Your task to perform on an android device: Clear the shopping cart on target. Search for usb-a to usb-b on target, select the first entry, and add it to the cart. Image 0: 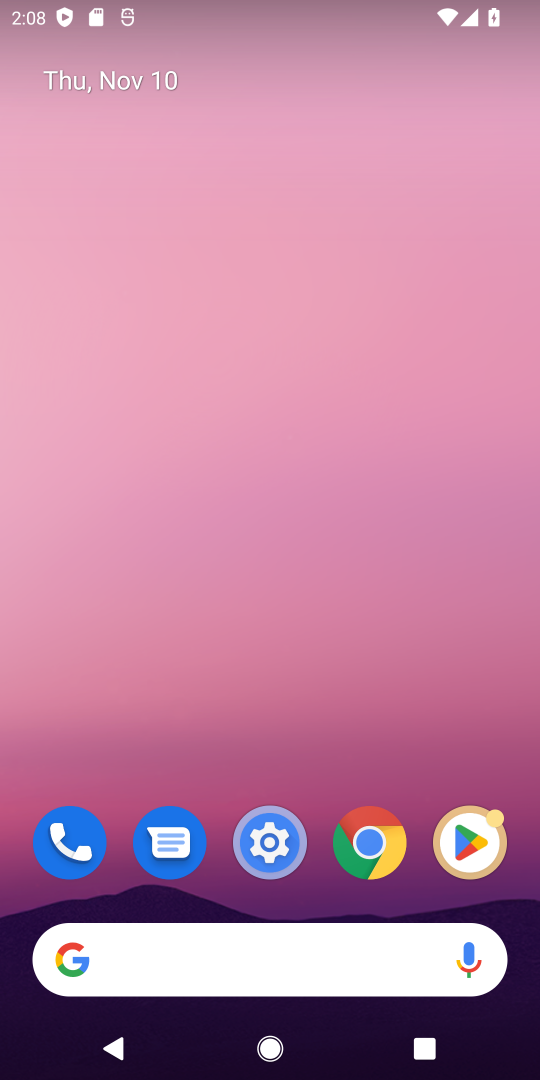
Step 0: press home button
Your task to perform on an android device: Clear the shopping cart on target. Search for usb-a to usb-b on target, select the first entry, and add it to the cart. Image 1: 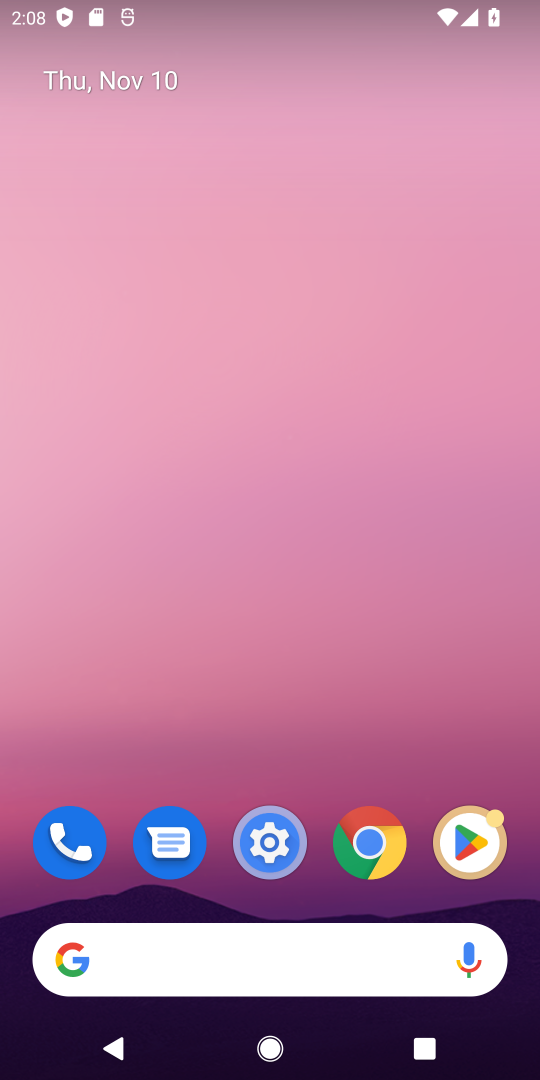
Step 1: click (110, 962)
Your task to perform on an android device: Clear the shopping cart on target. Search for usb-a to usb-b on target, select the first entry, and add it to the cart. Image 2: 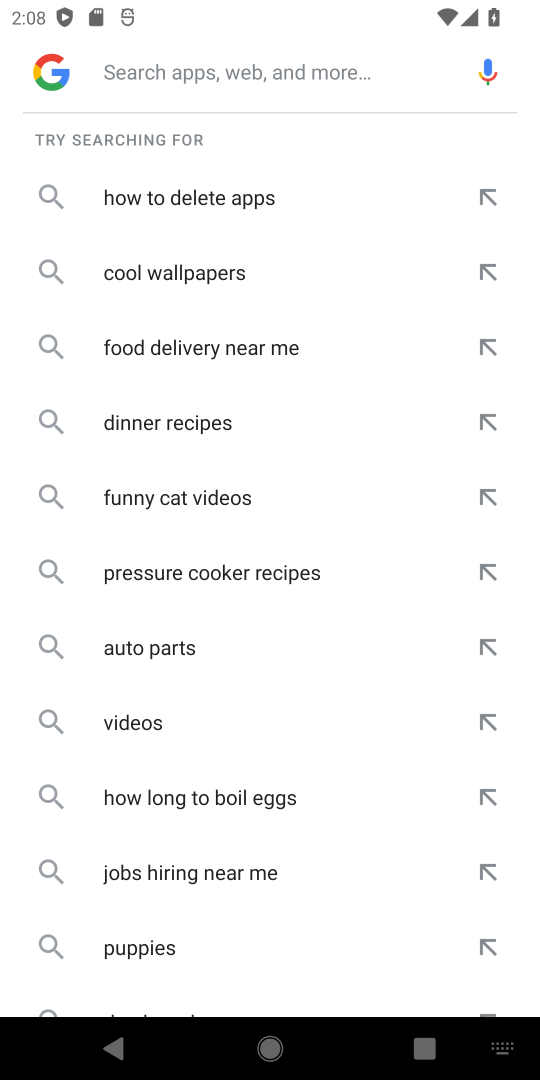
Step 2: type "target"
Your task to perform on an android device: Clear the shopping cart on target. Search for usb-a to usb-b on target, select the first entry, and add it to the cart. Image 3: 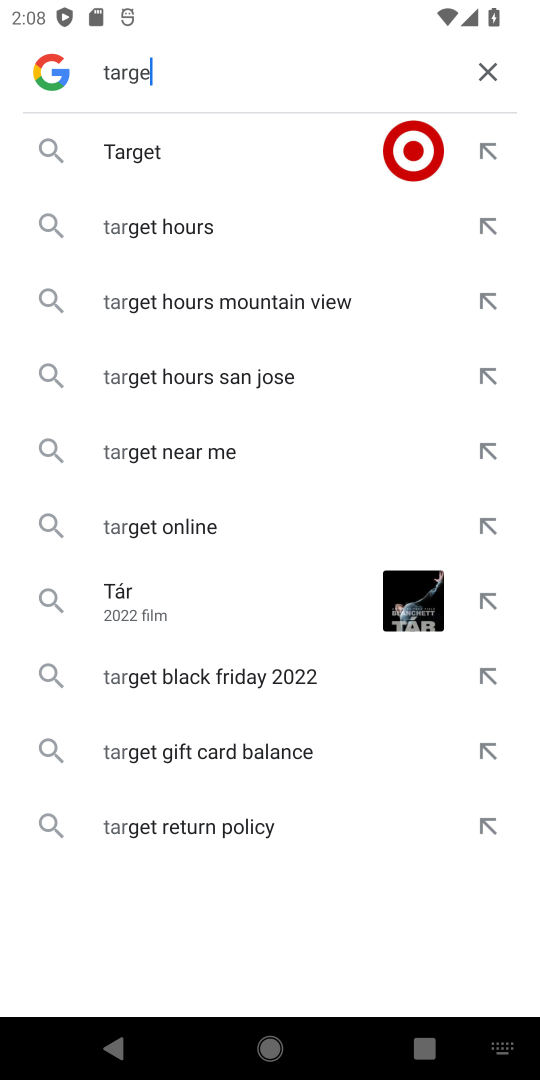
Step 3: press enter
Your task to perform on an android device: Clear the shopping cart on target. Search for usb-a to usb-b on target, select the first entry, and add it to the cart. Image 4: 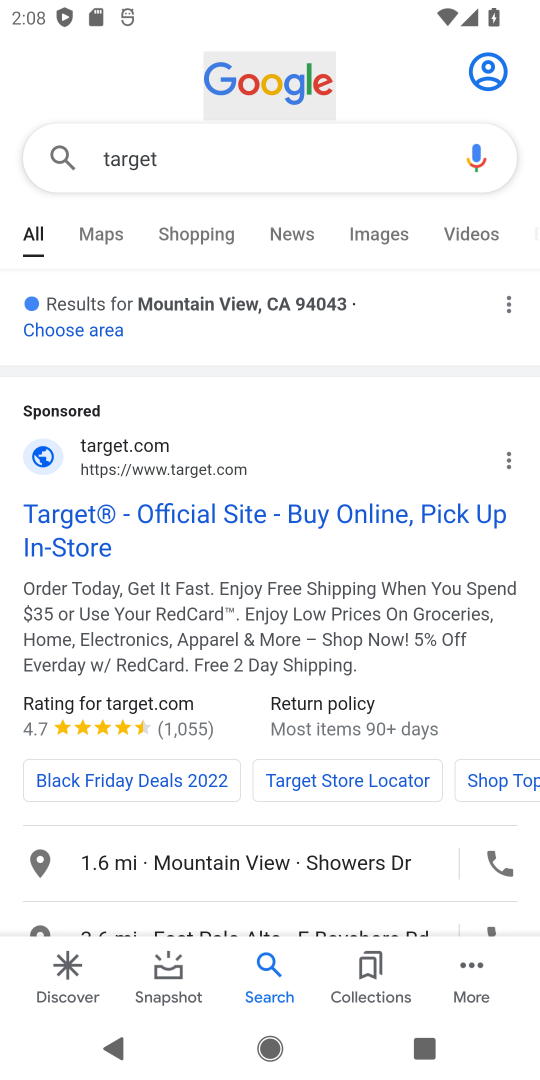
Step 4: click (179, 522)
Your task to perform on an android device: Clear the shopping cart on target. Search for usb-a to usb-b on target, select the first entry, and add it to the cart. Image 5: 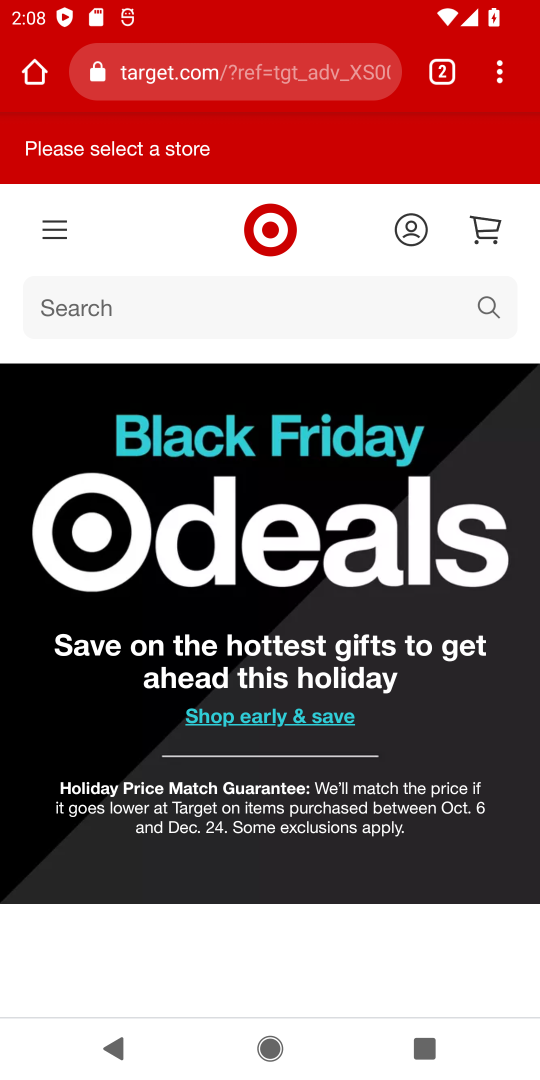
Step 5: click (489, 232)
Your task to perform on an android device: Clear the shopping cart on target. Search for usb-a to usb-b on target, select the first entry, and add it to the cart. Image 6: 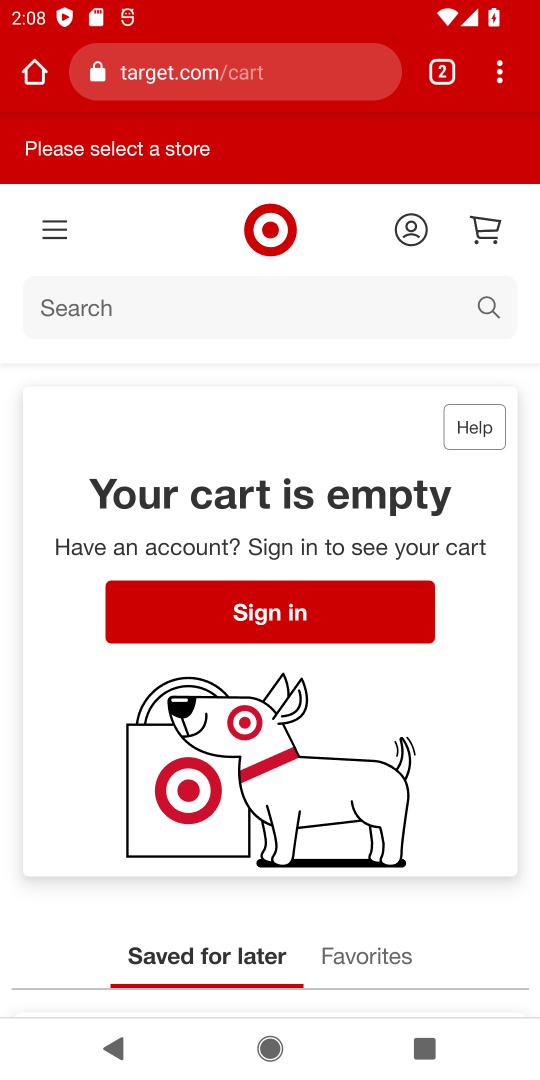
Step 6: click (56, 308)
Your task to perform on an android device: Clear the shopping cart on target. Search for usb-a to usb-b on target, select the first entry, and add it to the cart. Image 7: 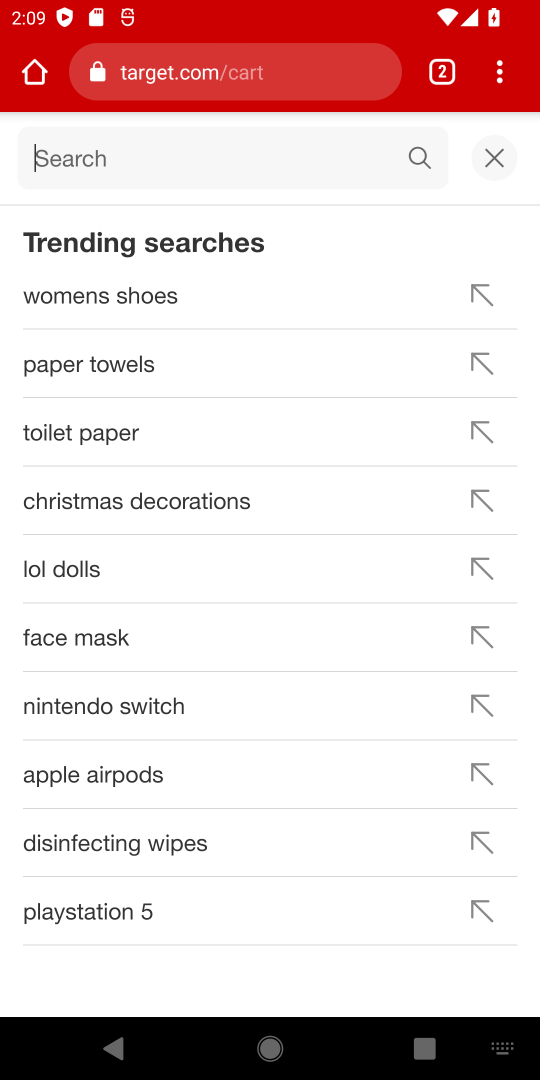
Step 7: type "usb-a to usb-b"
Your task to perform on an android device: Clear the shopping cart on target. Search for usb-a to usb-b on target, select the first entry, and add it to the cart. Image 8: 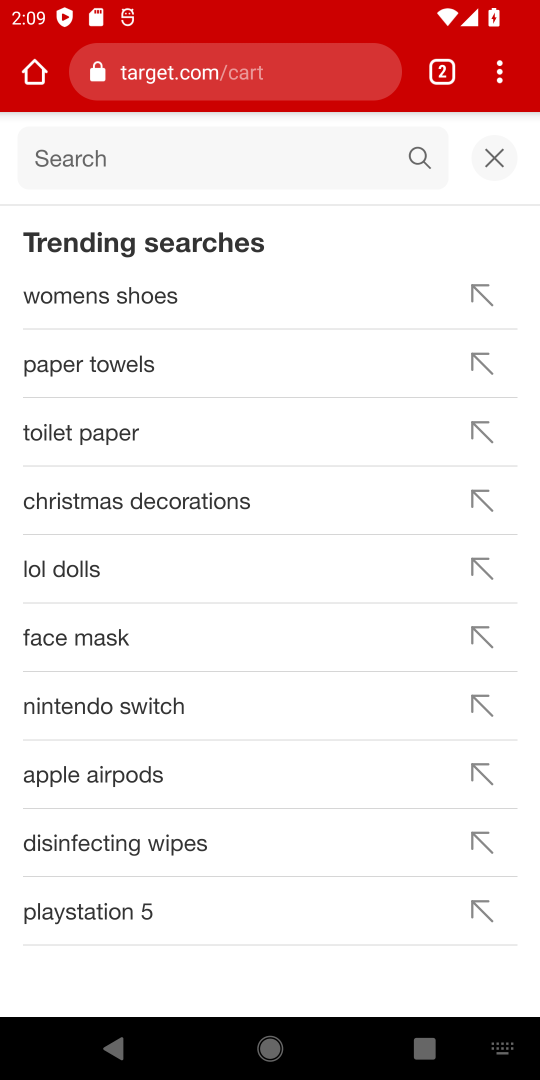
Step 8: press enter
Your task to perform on an android device: Clear the shopping cart on target. Search for usb-a to usb-b on target, select the first entry, and add it to the cart. Image 9: 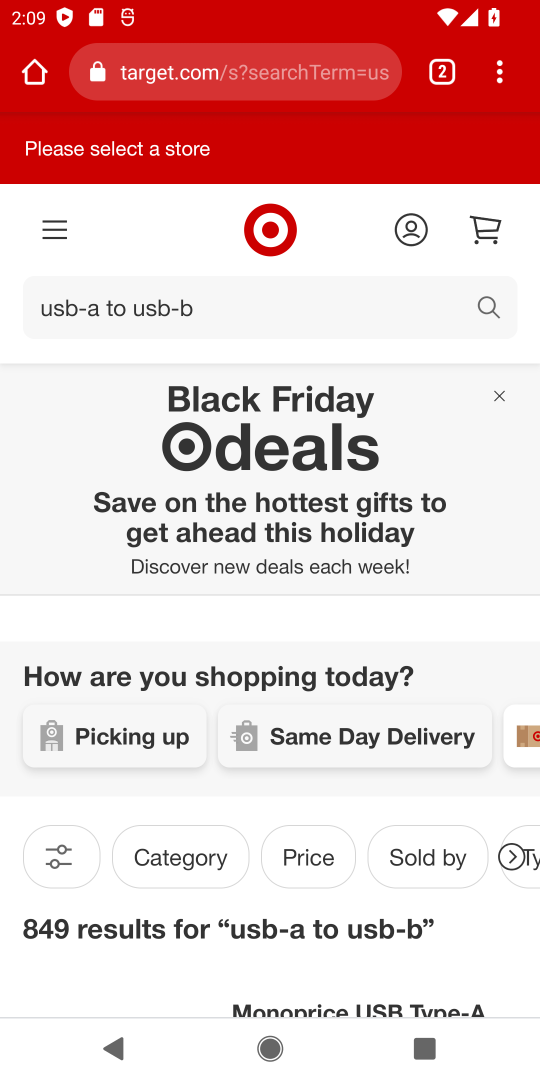
Step 9: drag from (368, 845) to (398, 394)
Your task to perform on an android device: Clear the shopping cart on target. Search for usb-a to usb-b on target, select the first entry, and add it to the cart. Image 10: 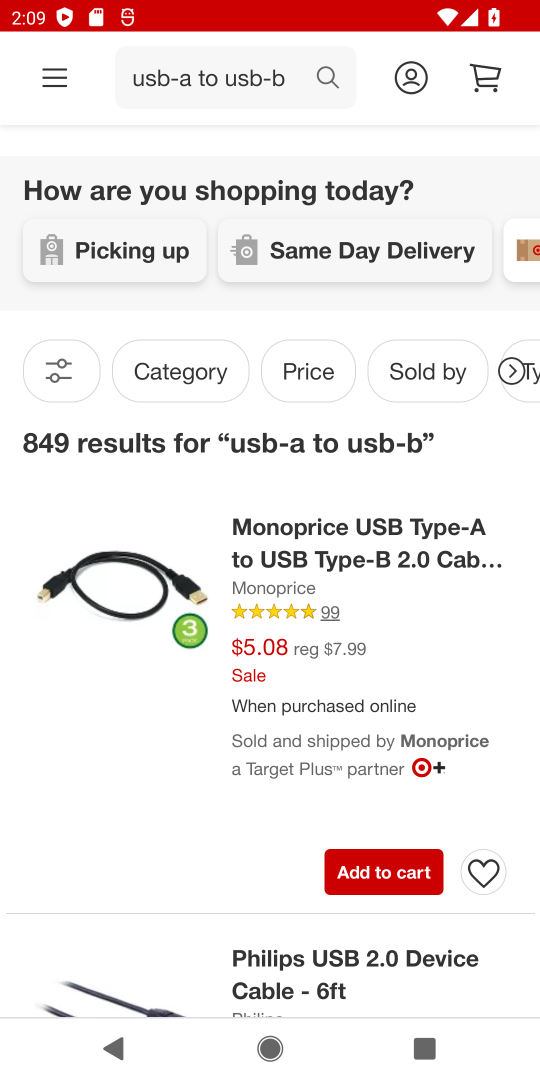
Step 10: drag from (269, 786) to (324, 459)
Your task to perform on an android device: Clear the shopping cart on target. Search for usb-a to usb-b on target, select the first entry, and add it to the cart. Image 11: 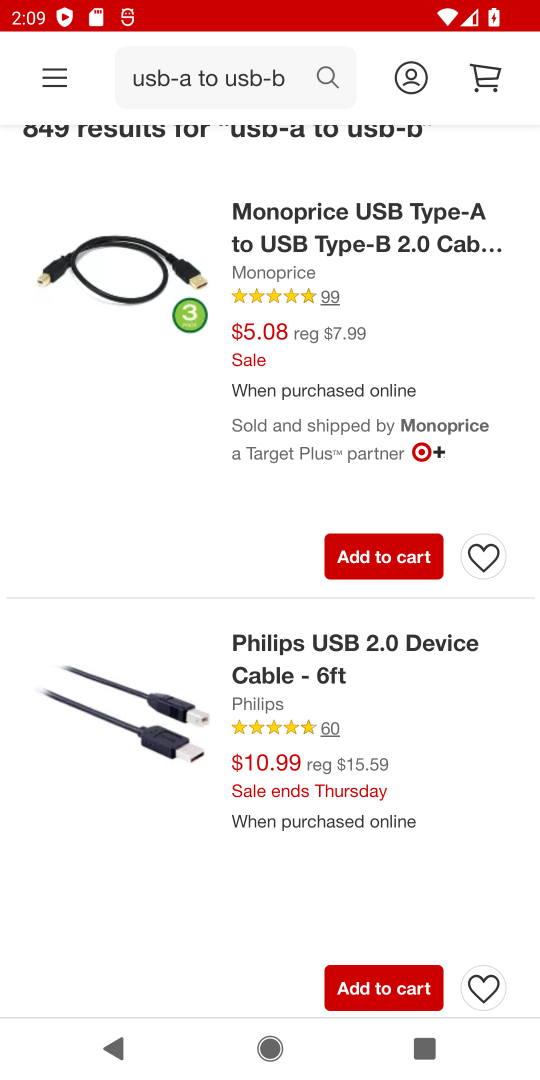
Step 11: click (367, 564)
Your task to perform on an android device: Clear the shopping cart on target. Search for usb-a to usb-b on target, select the first entry, and add it to the cart. Image 12: 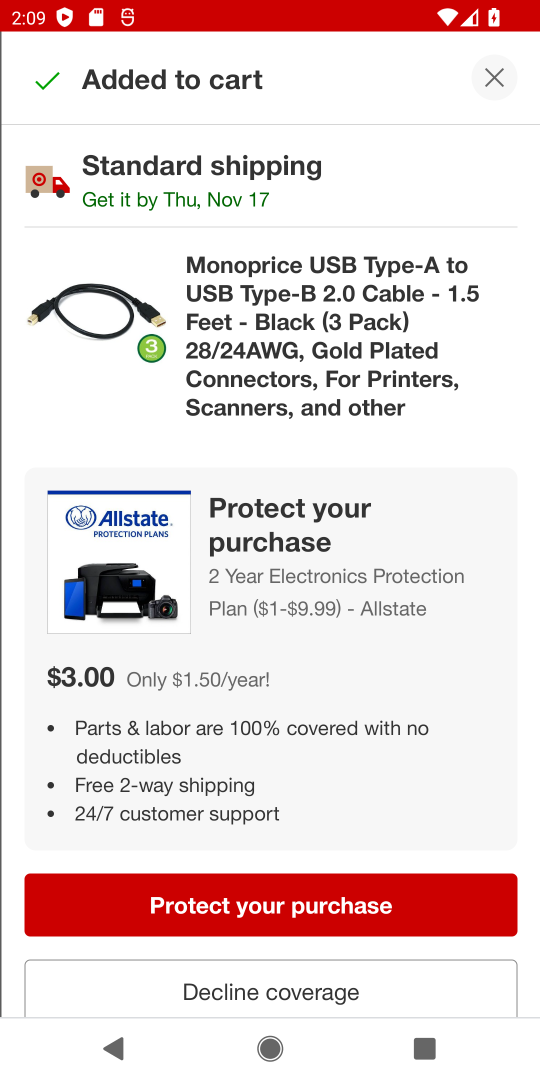
Step 12: click (274, 986)
Your task to perform on an android device: Clear the shopping cart on target. Search for usb-a to usb-b on target, select the first entry, and add it to the cart. Image 13: 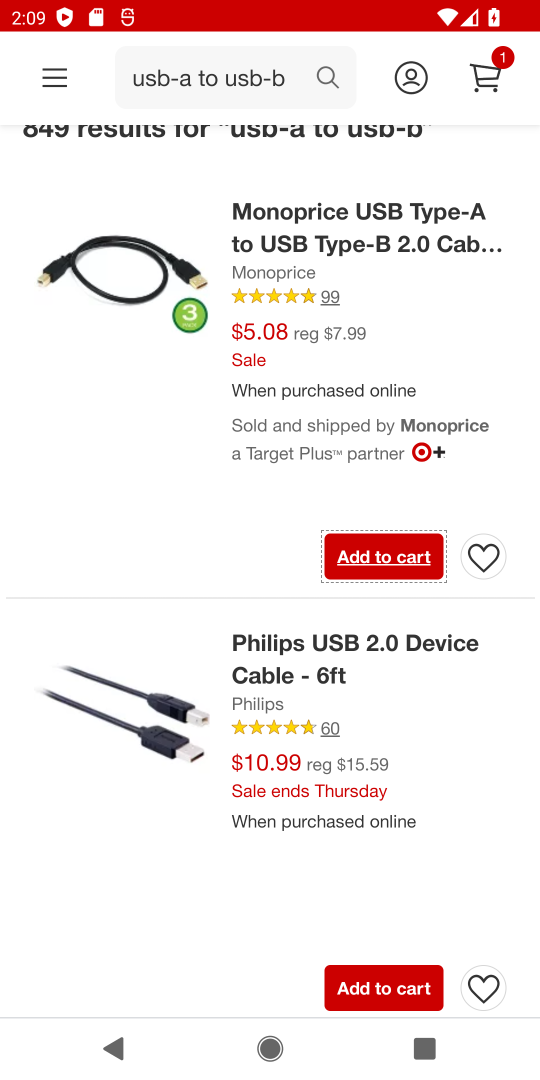
Step 13: click (384, 554)
Your task to perform on an android device: Clear the shopping cart on target. Search for usb-a to usb-b on target, select the first entry, and add it to the cart. Image 14: 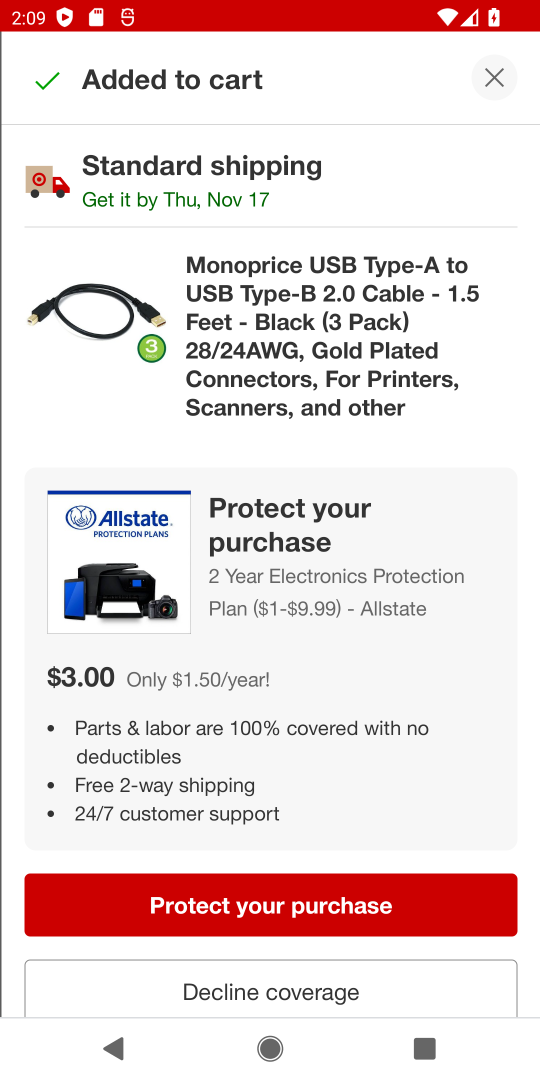
Step 14: click (340, 906)
Your task to perform on an android device: Clear the shopping cart on target. Search for usb-a to usb-b on target, select the first entry, and add it to the cart. Image 15: 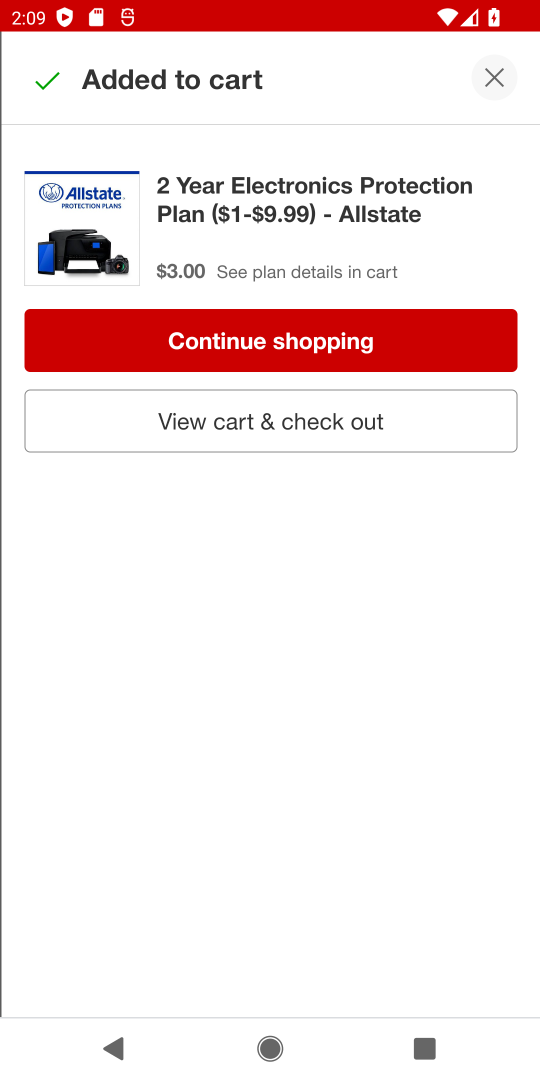
Step 15: task complete